Your task to perform on an android device: all mails in gmail Image 0: 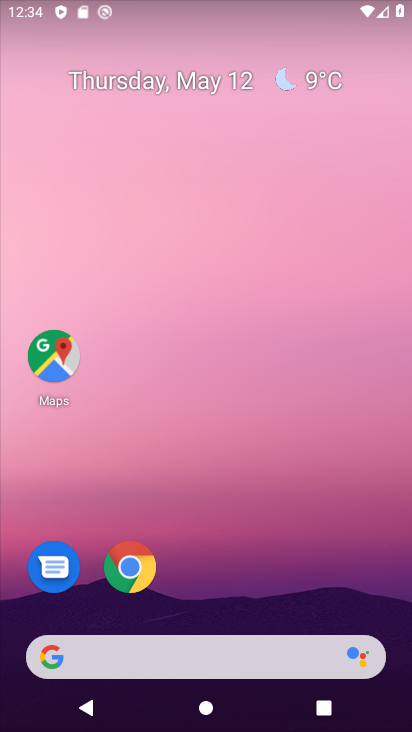
Step 0: drag from (209, 630) to (394, 158)
Your task to perform on an android device: all mails in gmail Image 1: 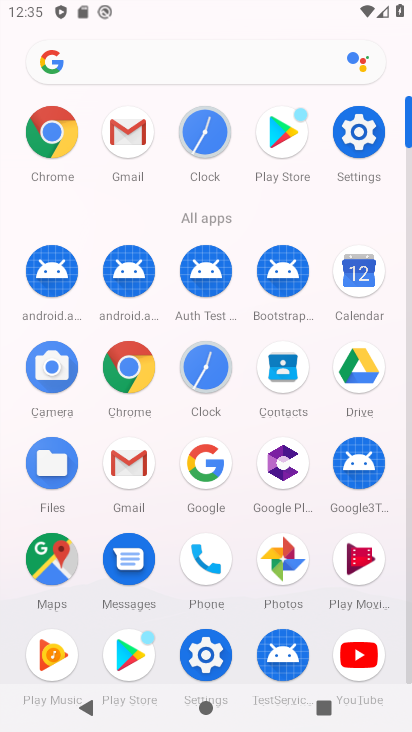
Step 1: click (126, 455)
Your task to perform on an android device: all mails in gmail Image 2: 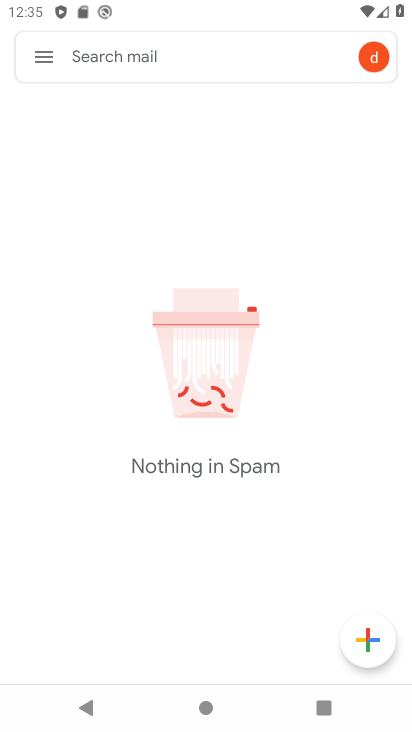
Step 2: click (44, 51)
Your task to perform on an android device: all mails in gmail Image 3: 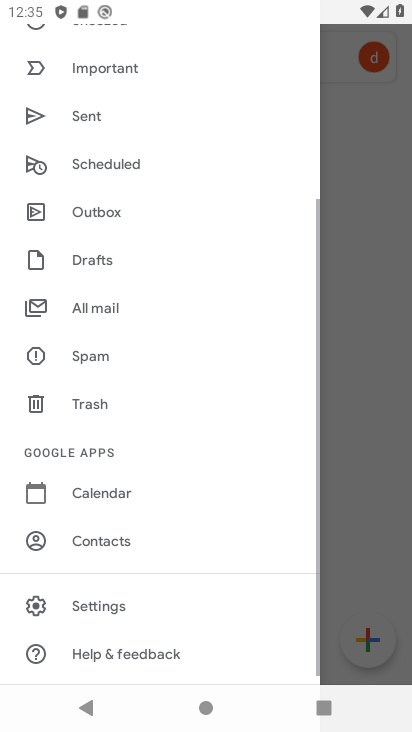
Step 3: click (123, 298)
Your task to perform on an android device: all mails in gmail Image 4: 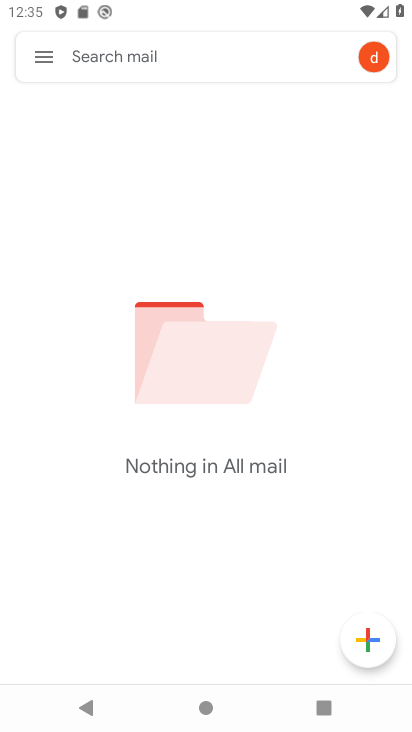
Step 4: task complete